Your task to perform on an android device: Go to sound settings Image 0: 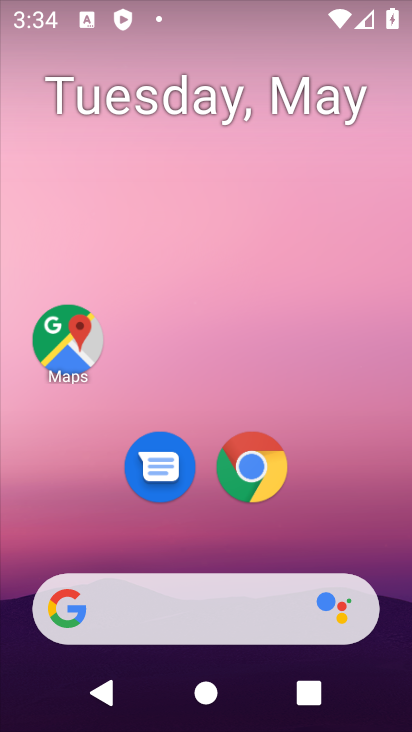
Step 0: drag from (366, 520) to (285, 71)
Your task to perform on an android device: Go to sound settings Image 1: 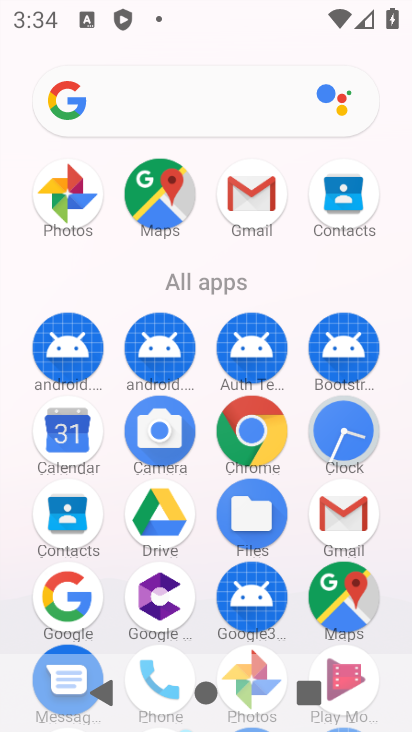
Step 1: task complete